Your task to perform on an android device: Search for pizza restaurants on Maps Image 0: 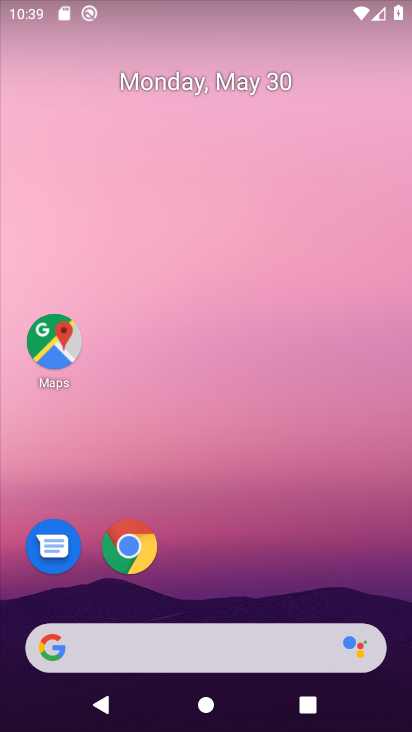
Step 0: click (59, 344)
Your task to perform on an android device: Search for pizza restaurants on Maps Image 1: 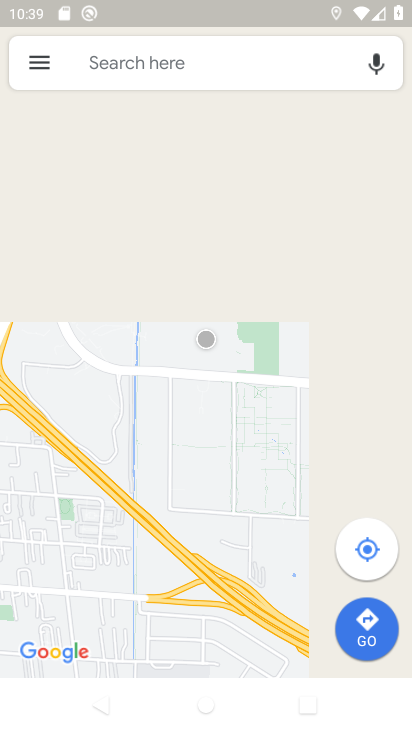
Step 1: click (190, 56)
Your task to perform on an android device: Search for pizza restaurants on Maps Image 2: 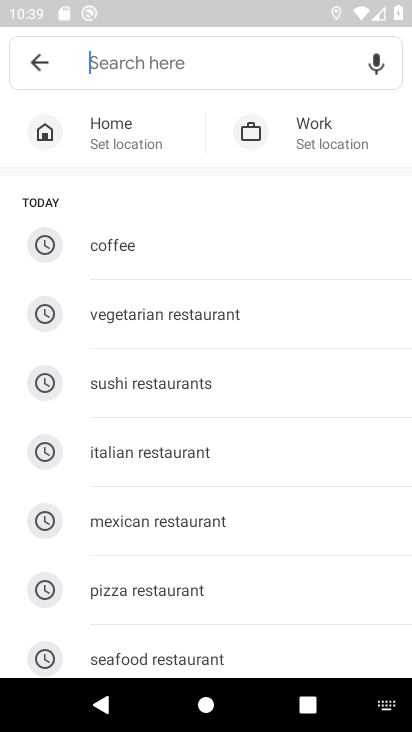
Step 2: type "Pizza restaurants"
Your task to perform on an android device: Search for pizza restaurants on Maps Image 3: 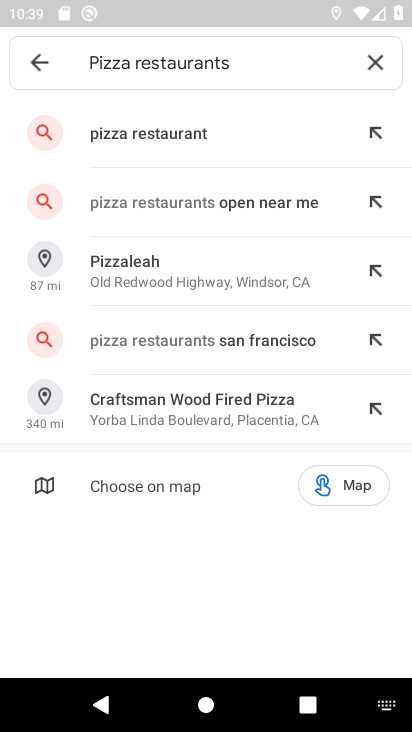
Step 3: click (206, 119)
Your task to perform on an android device: Search for pizza restaurants on Maps Image 4: 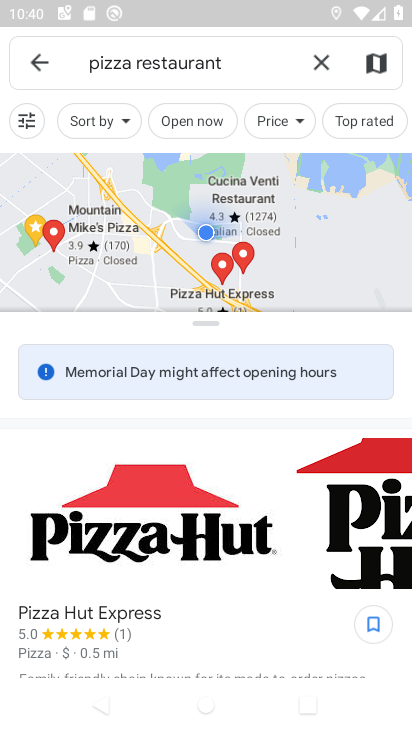
Step 4: task complete